Your task to perform on an android device: toggle improve location accuracy Image 0: 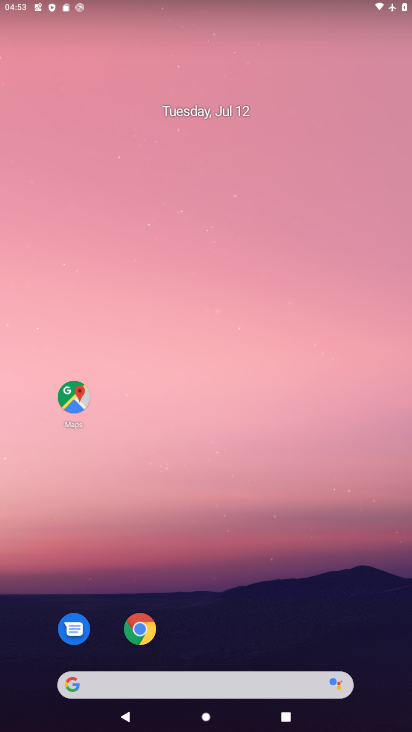
Step 0: drag from (339, 550) to (258, 7)
Your task to perform on an android device: toggle improve location accuracy Image 1: 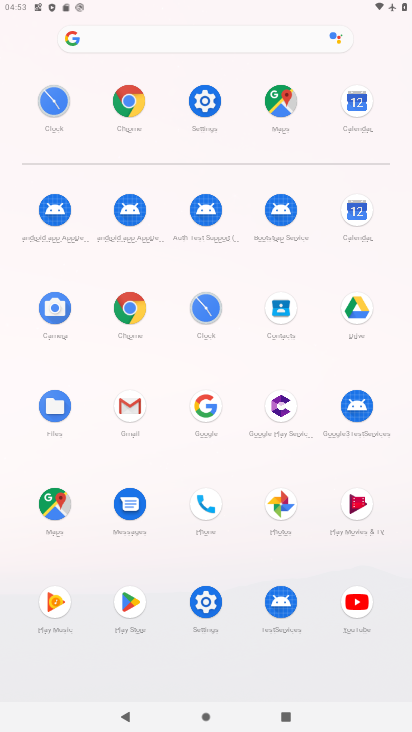
Step 1: click (213, 101)
Your task to perform on an android device: toggle improve location accuracy Image 2: 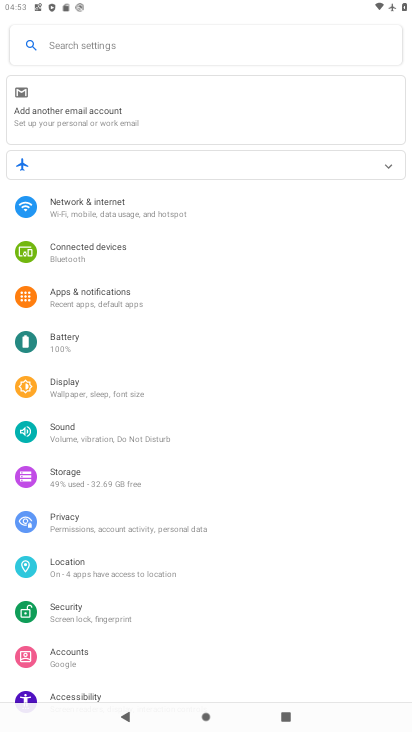
Step 2: click (99, 572)
Your task to perform on an android device: toggle improve location accuracy Image 3: 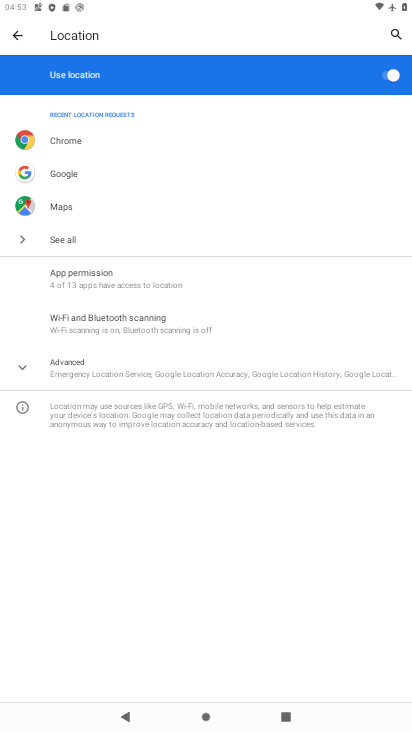
Step 3: click (102, 368)
Your task to perform on an android device: toggle improve location accuracy Image 4: 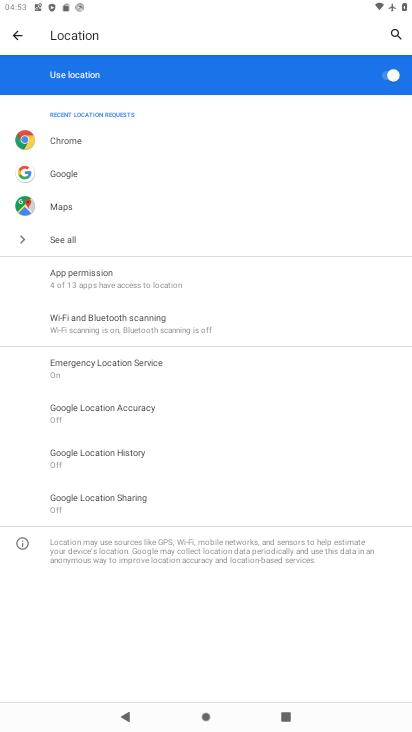
Step 4: click (141, 410)
Your task to perform on an android device: toggle improve location accuracy Image 5: 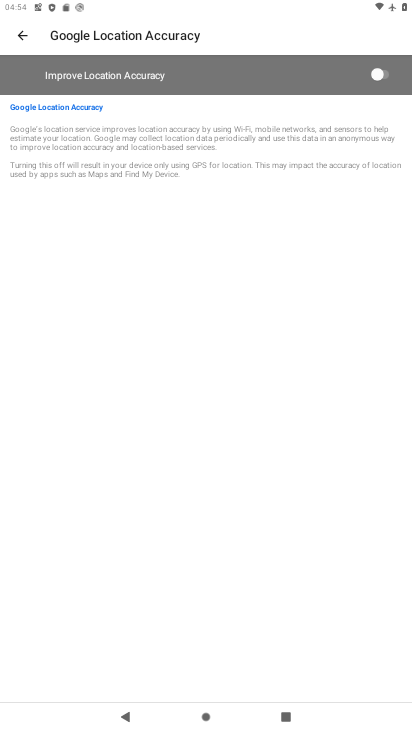
Step 5: click (375, 84)
Your task to perform on an android device: toggle improve location accuracy Image 6: 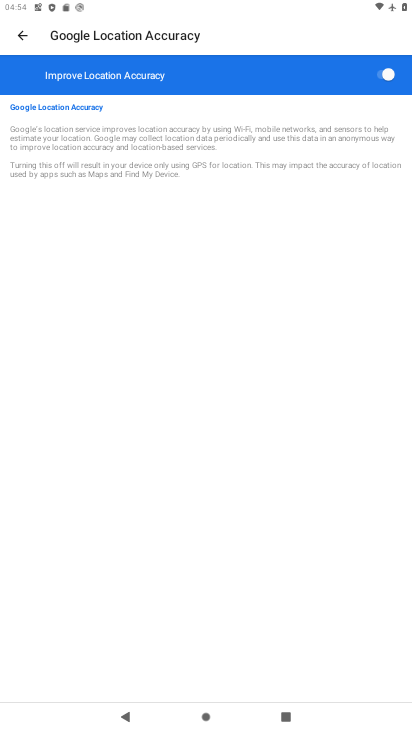
Step 6: task complete